Your task to perform on an android device: Search for vegetarian restaurants on Maps Image 0: 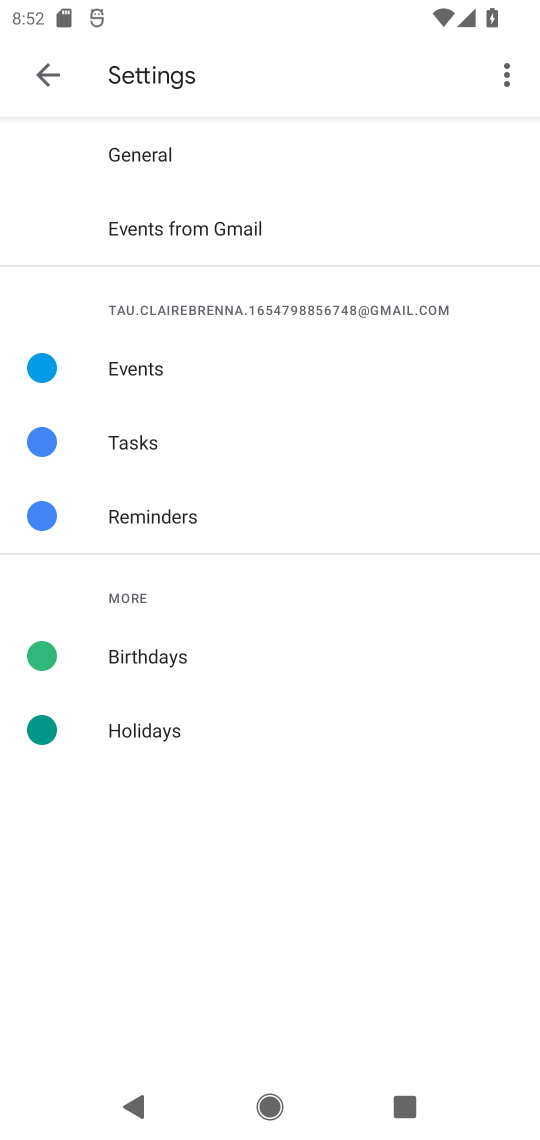
Step 0: press home button
Your task to perform on an android device: Search for vegetarian restaurants on Maps Image 1: 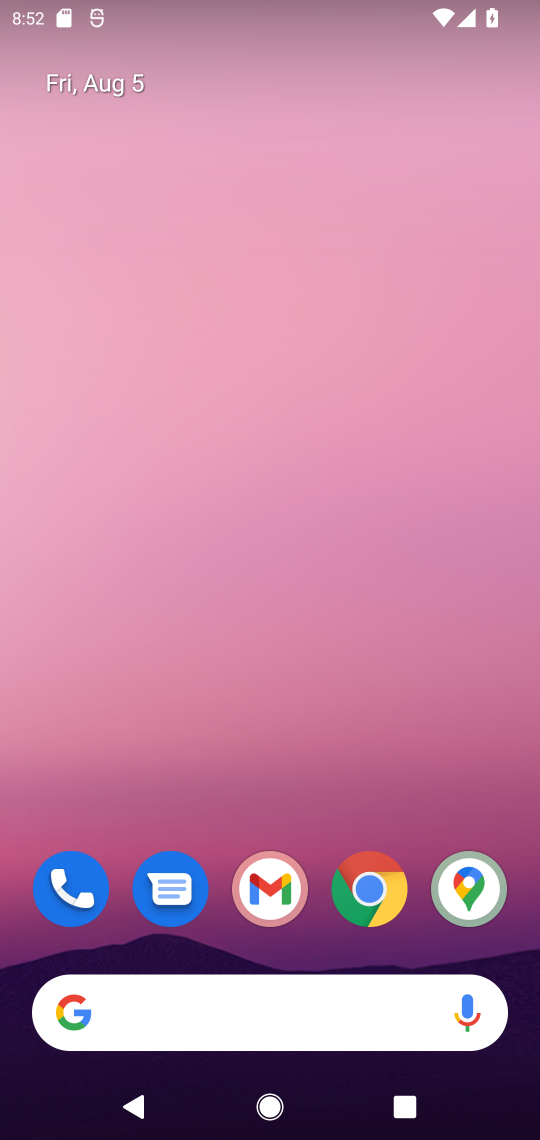
Step 1: drag from (290, 851) to (351, 240)
Your task to perform on an android device: Search for vegetarian restaurants on Maps Image 2: 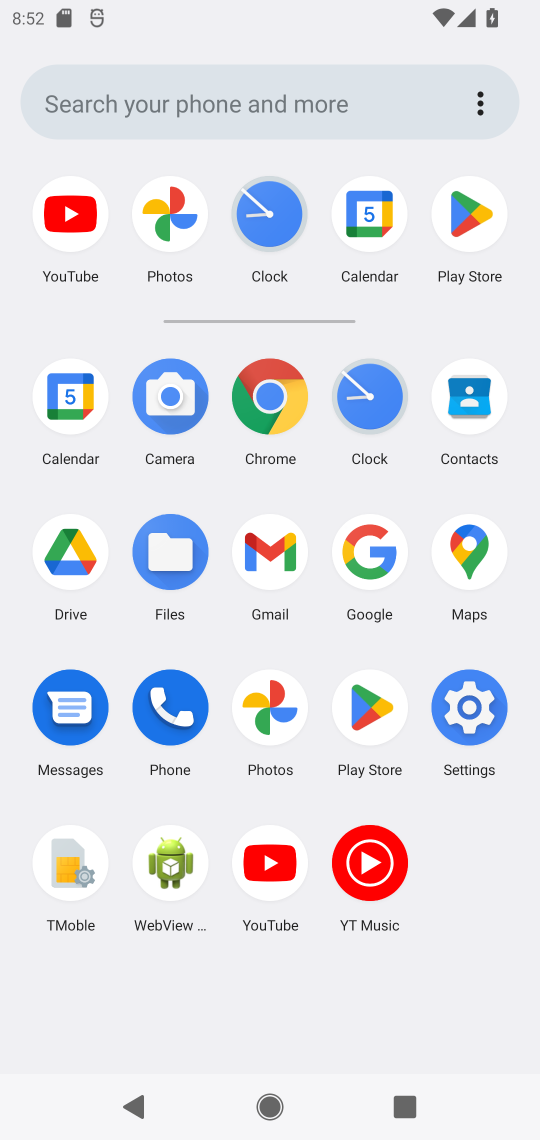
Step 2: click (478, 541)
Your task to perform on an android device: Search for vegetarian restaurants on Maps Image 3: 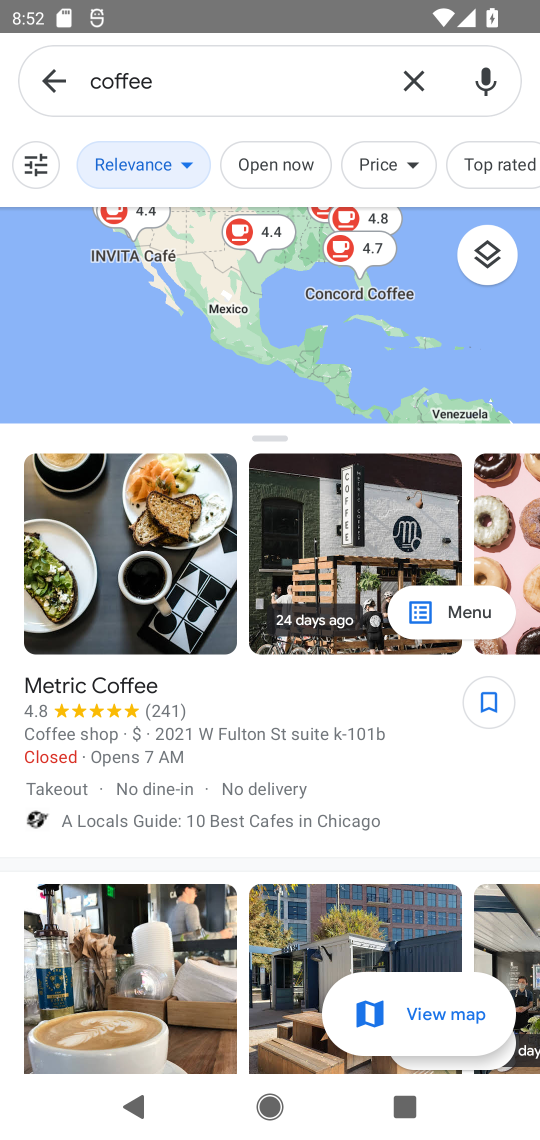
Step 3: click (402, 78)
Your task to perform on an android device: Search for vegetarian restaurants on Maps Image 4: 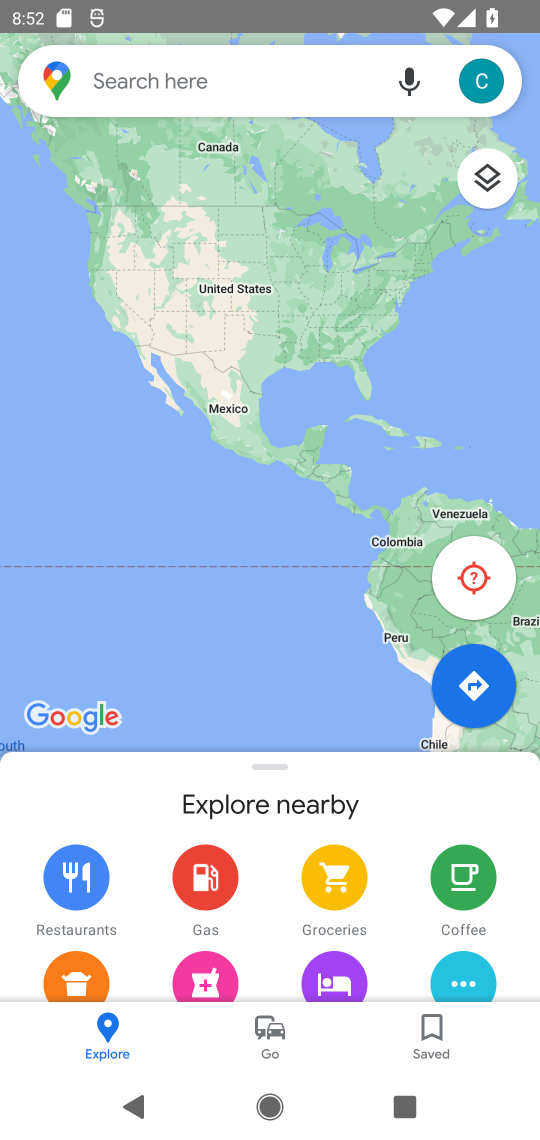
Step 4: click (202, 86)
Your task to perform on an android device: Search for vegetarian restaurants on Maps Image 5: 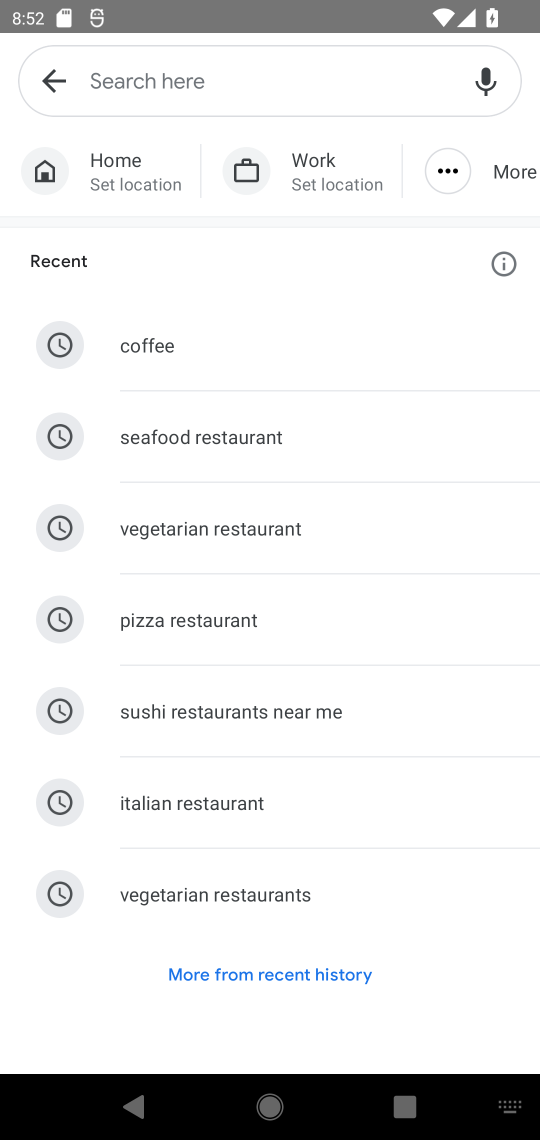
Step 5: click (201, 887)
Your task to perform on an android device: Search for vegetarian restaurants on Maps Image 6: 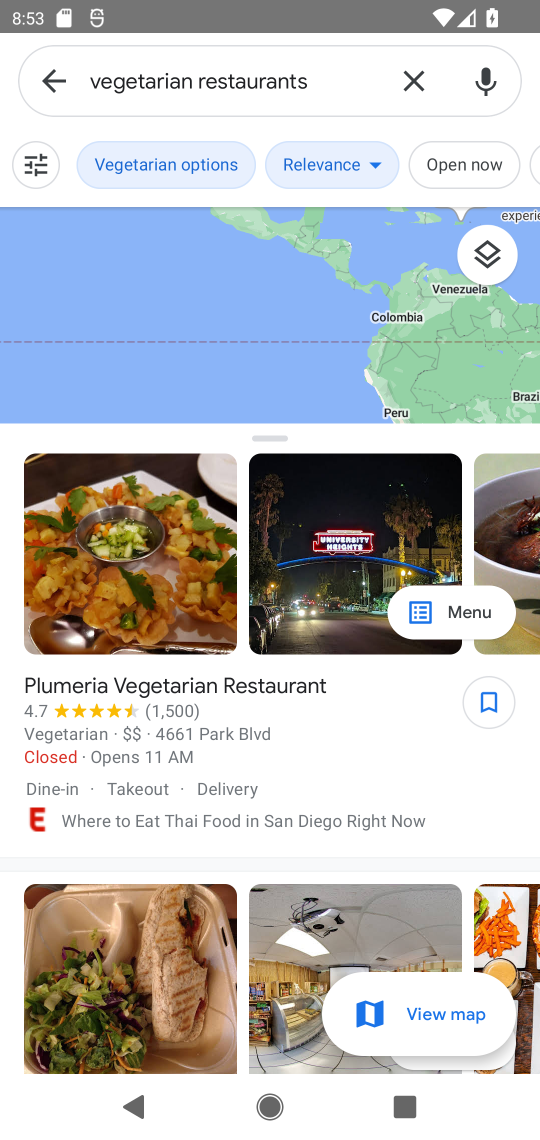
Step 6: task complete